Your task to perform on an android device: turn on showing notifications on the lock screen Image 0: 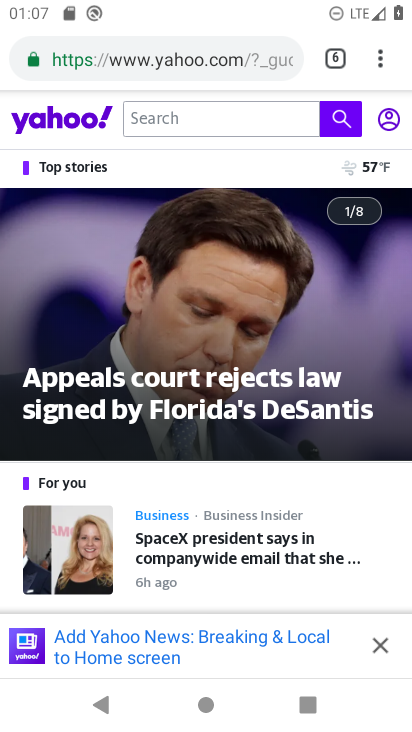
Step 0: press home button
Your task to perform on an android device: turn on showing notifications on the lock screen Image 1: 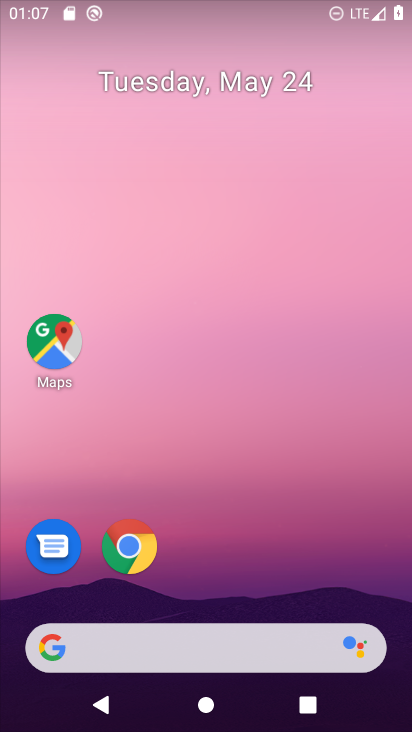
Step 1: drag from (162, 664) to (242, 80)
Your task to perform on an android device: turn on showing notifications on the lock screen Image 2: 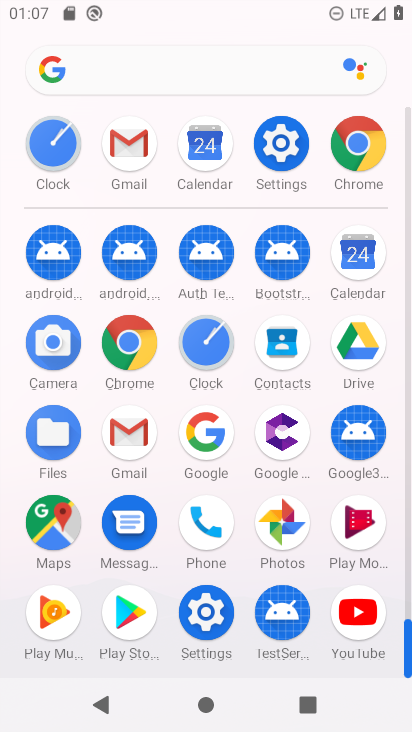
Step 2: click (296, 136)
Your task to perform on an android device: turn on showing notifications on the lock screen Image 3: 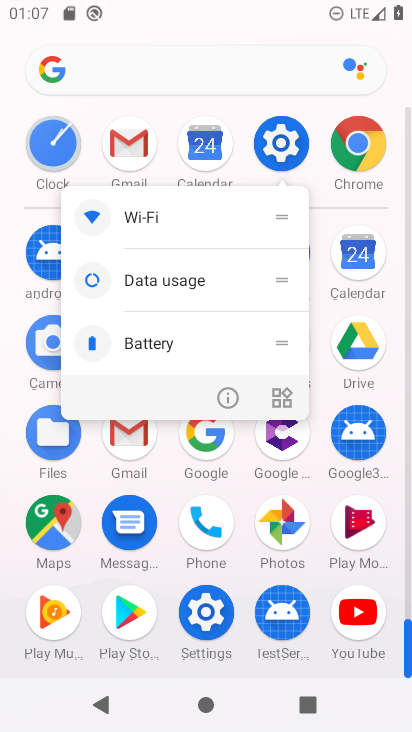
Step 3: click (301, 161)
Your task to perform on an android device: turn on showing notifications on the lock screen Image 4: 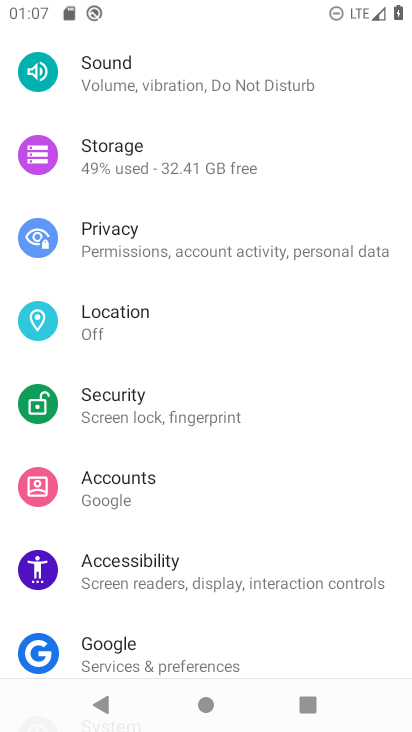
Step 4: drag from (311, 196) to (192, 726)
Your task to perform on an android device: turn on showing notifications on the lock screen Image 5: 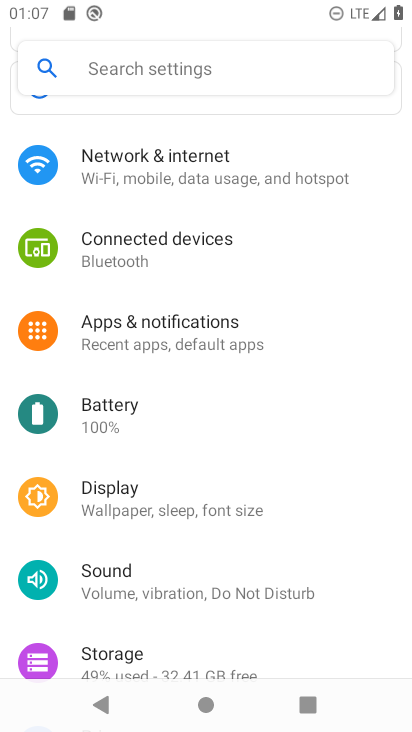
Step 5: click (230, 341)
Your task to perform on an android device: turn on showing notifications on the lock screen Image 6: 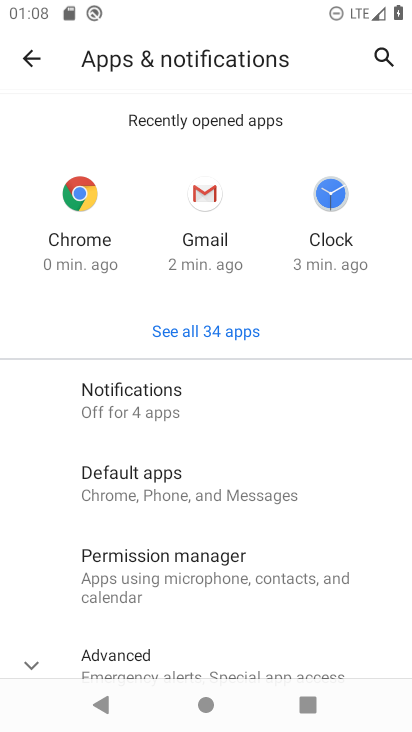
Step 6: click (171, 394)
Your task to perform on an android device: turn on showing notifications on the lock screen Image 7: 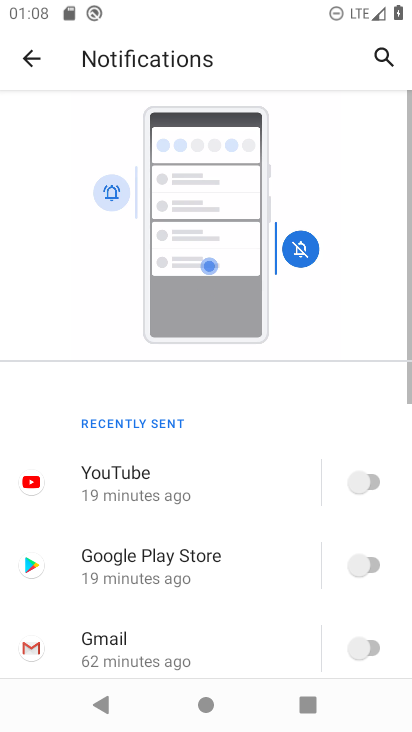
Step 7: drag from (257, 633) to (274, 192)
Your task to perform on an android device: turn on showing notifications on the lock screen Image 8: 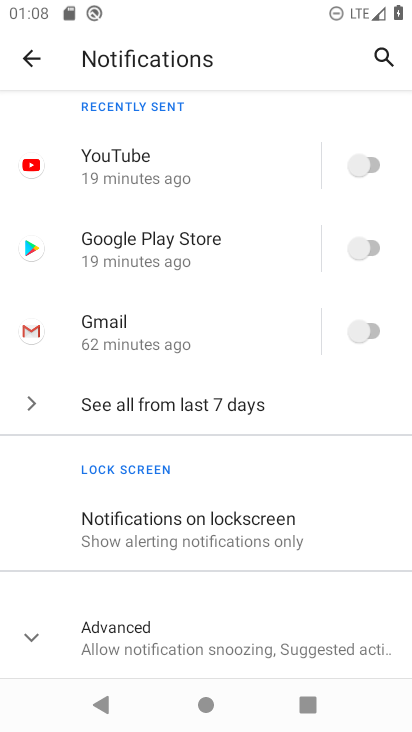
Step 8: click (230, 542)
Your task to perform on an android device: turn on showing notifications on the lock screen Image 9: 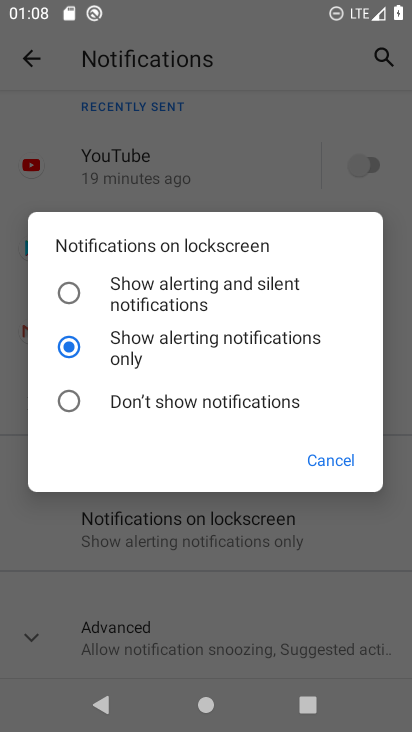
Step 9: click (121, 295)
Your task to perform on an android device: turn on showing notifications on the lock screen Image 10: 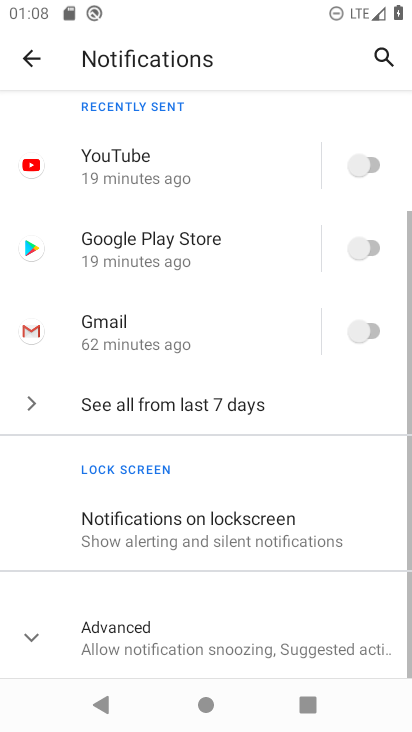
Step 10: task complete